Your task to perform on an android device: change the clock display to analog Image 0: 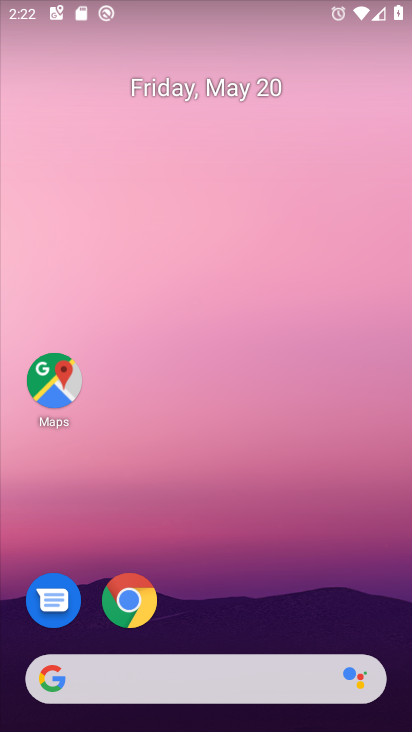
Step 0: drag from (239, 606) to (362, 99)
Your task to perform on an android device: change the clock display to analog Image 1: 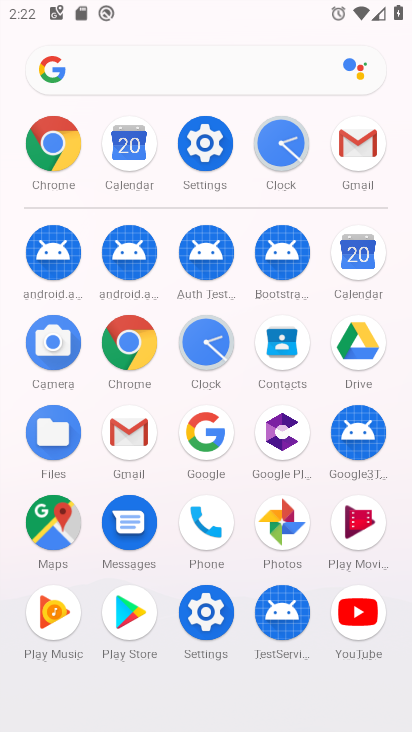
Step 1: drag from (179, 634) to (293, 247)
Your task to perform on an android device: change the clock display to analog Image 2: 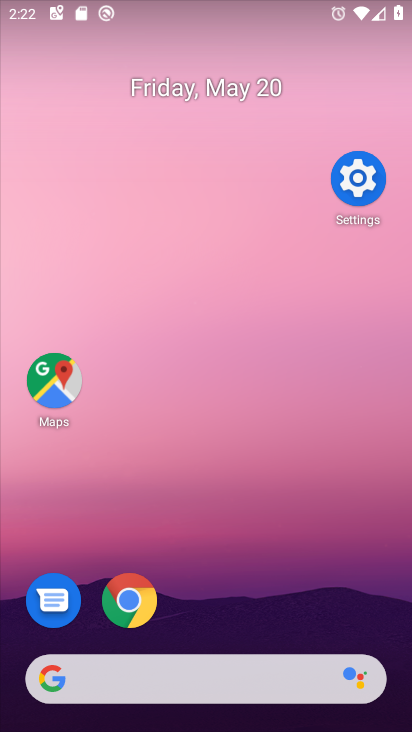
Step 2: drag from (274, 283) to (306, 107)
Your task to perform on an android device: change the clock display to analog Image 3: 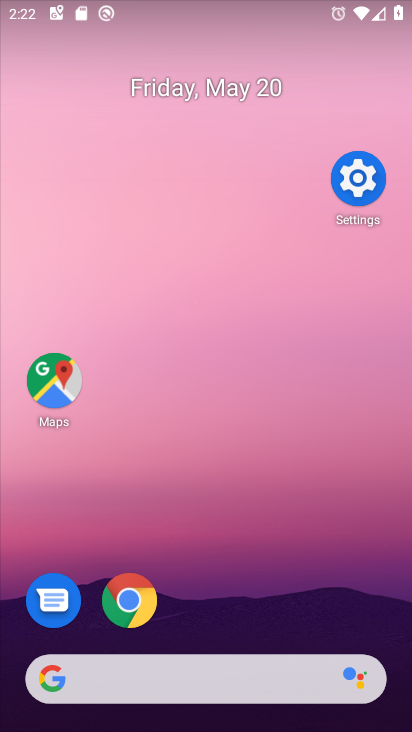
Step 3: drag from (238, 620) to (282, 1)
Your task to perform on an android device: change the clock display to analog Image 4: 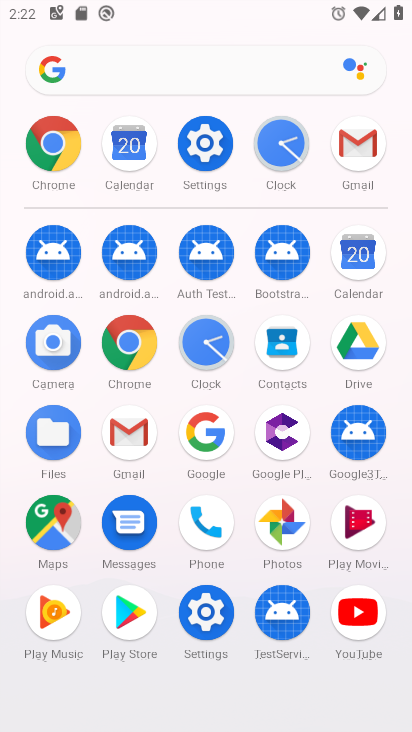
Step 4: click (213, 360)
Your task to perform on an android device: change the clock display to analog Image 5: 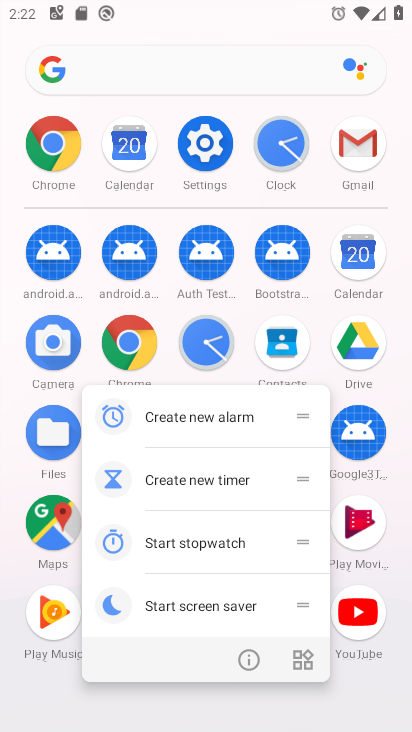
Step 5: click (205, 337)
Your task to perform on an android device: change the clock display to analog Image 6: 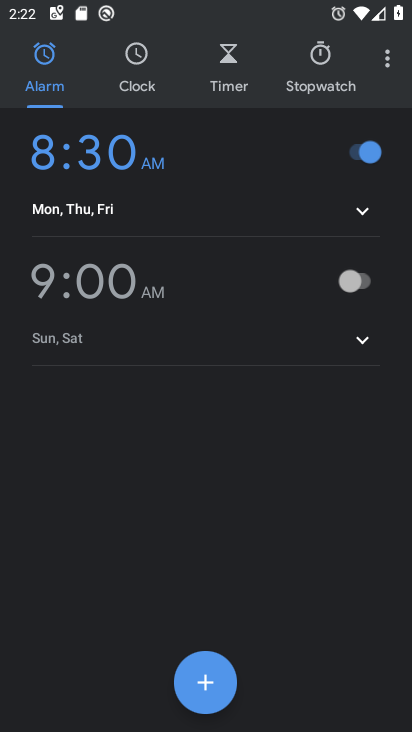
Step 6: click (208, 359)
Your task to perform on an android device: change the clock display to analog Image 7: 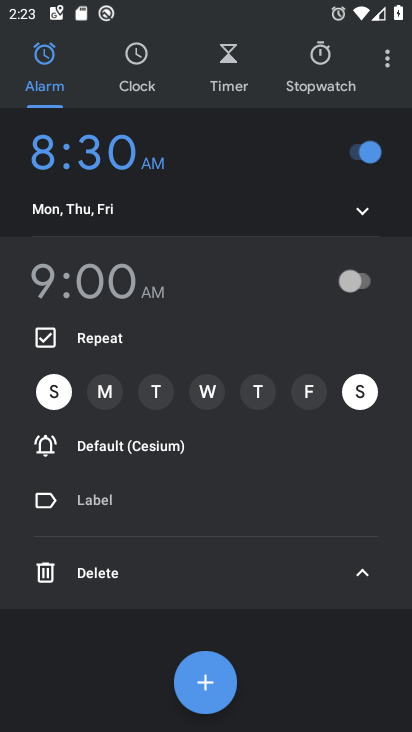
Step 7: click (388, 70)
Your task to perform on an android device: change the clock display to analog Image 8: 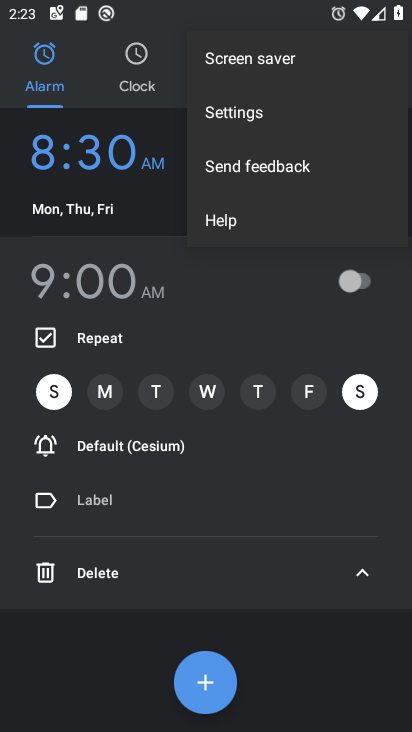
Step 8: click (287, 121)
Your task to perform on an android device: change the clock display to analog Image 9: 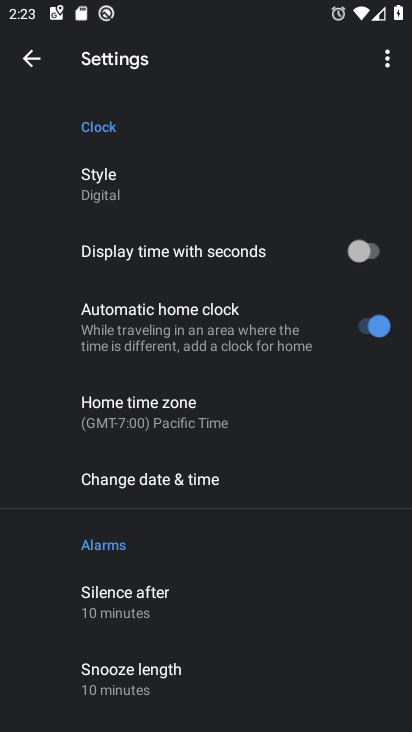
Step 9: click (140, 195)
Your task to perform on an android device: change the clock display to analog Image 10: 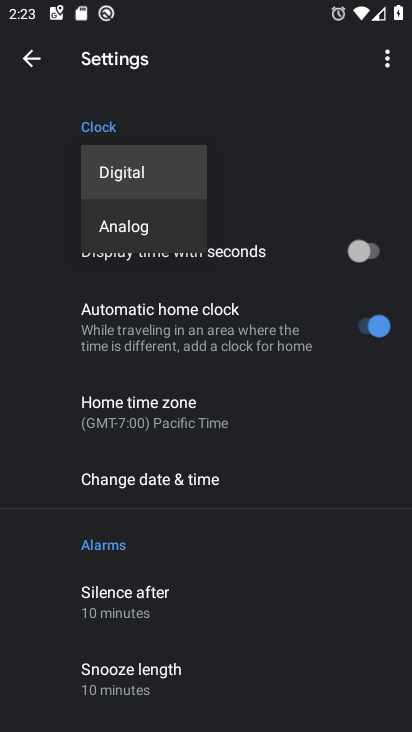
Step 10: click (146, 227)
Your task to perform on an android device: change the clock display to analog Image 11: 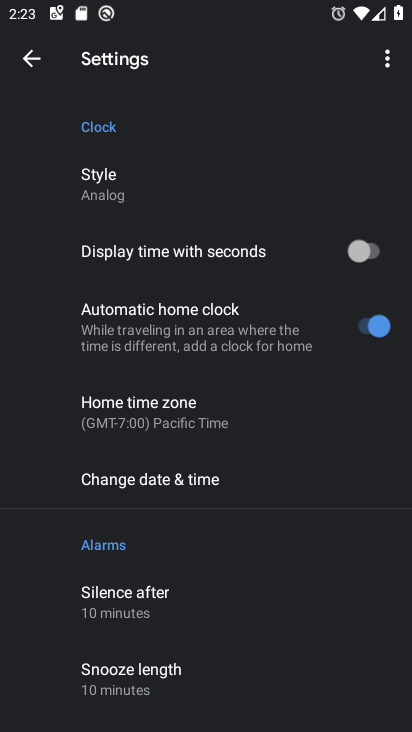
Step 11: task complete